Your task to perform on an android device: Search for "jbl flip 4" on walmart.com, select the first entry, add it to the cart, then select checkout. Image 0: 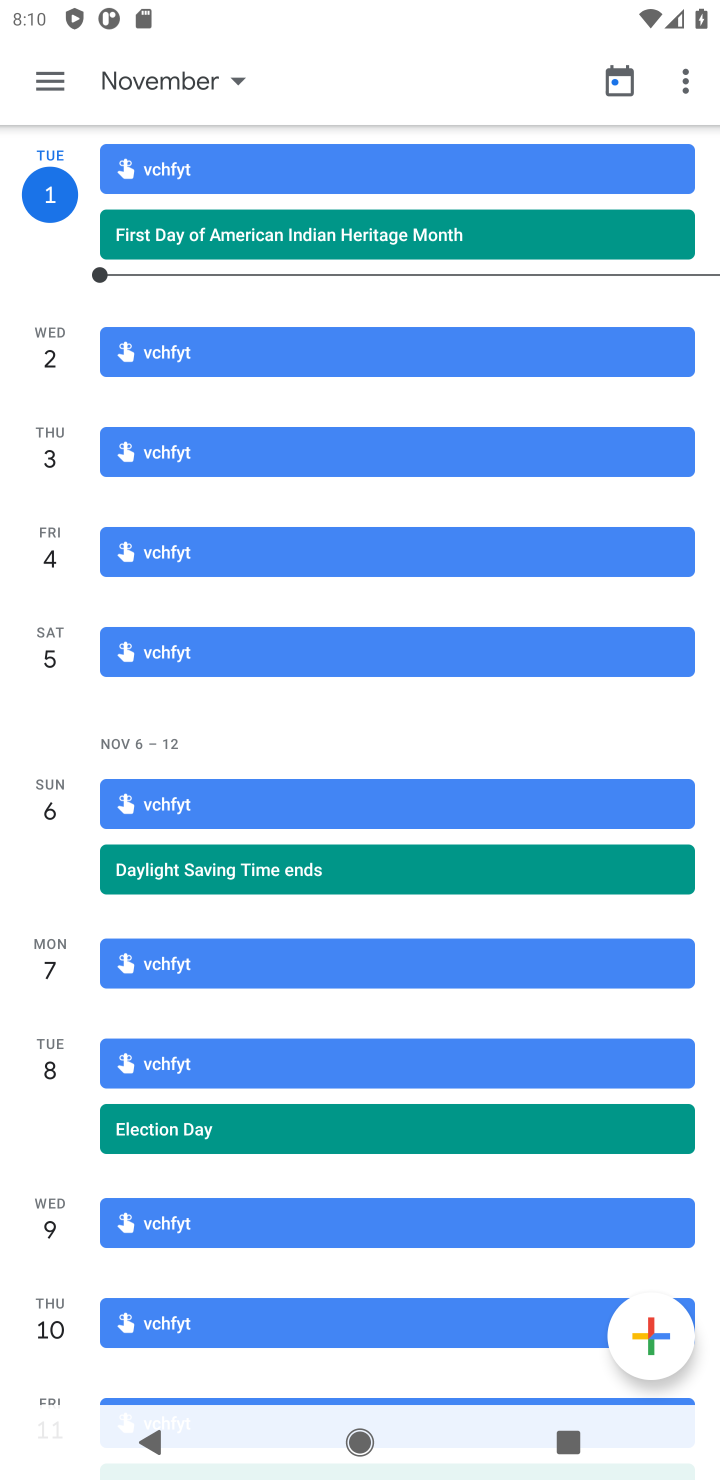
Step 0: press home button
Your task to perform on an android device: Search for "jbl flip 4" on walmart.com, select the first entry, add it to the cart, then select checkout. Image 1: 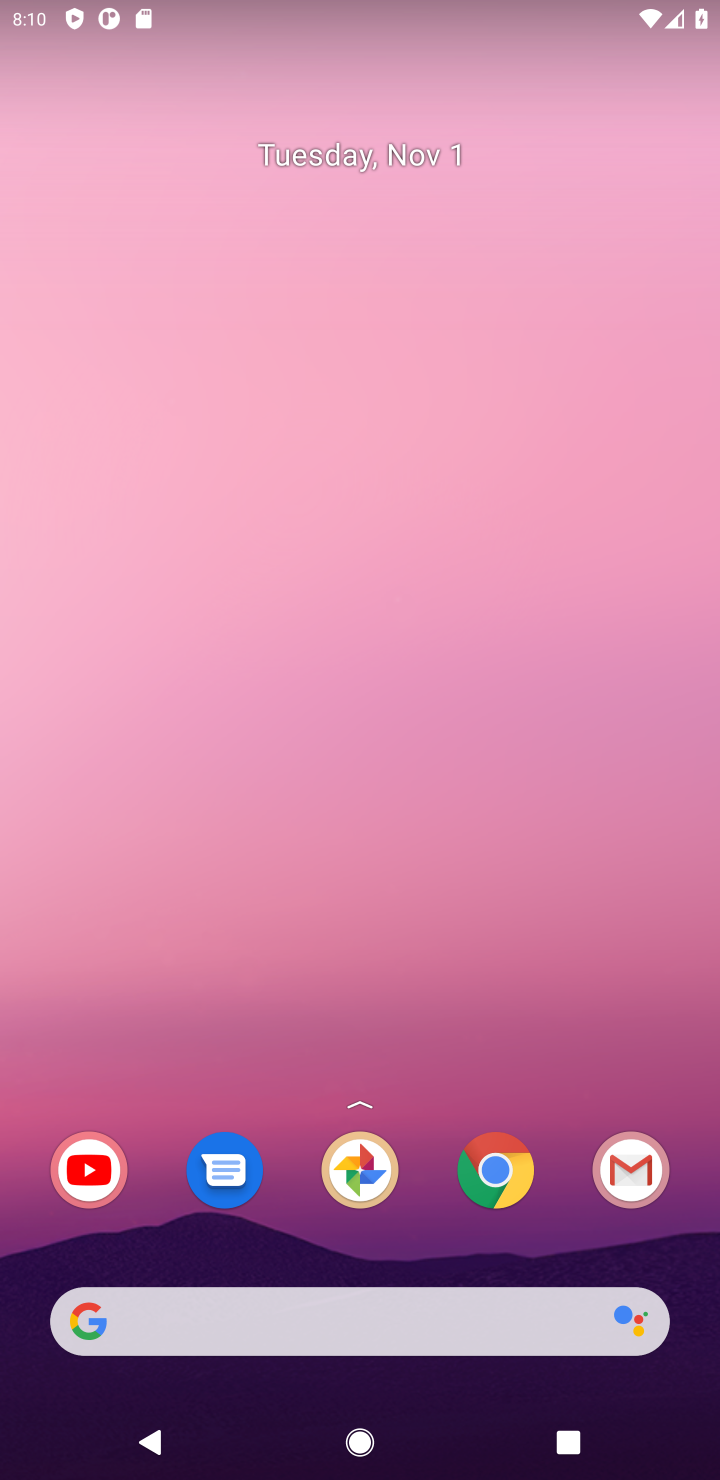
Step 1: click (509, 1195)
Your task to perform on an android device: Search for "jbl flip 4" on walmart.com, select the first entry, add it to the cart, then select checkout. Image 2: 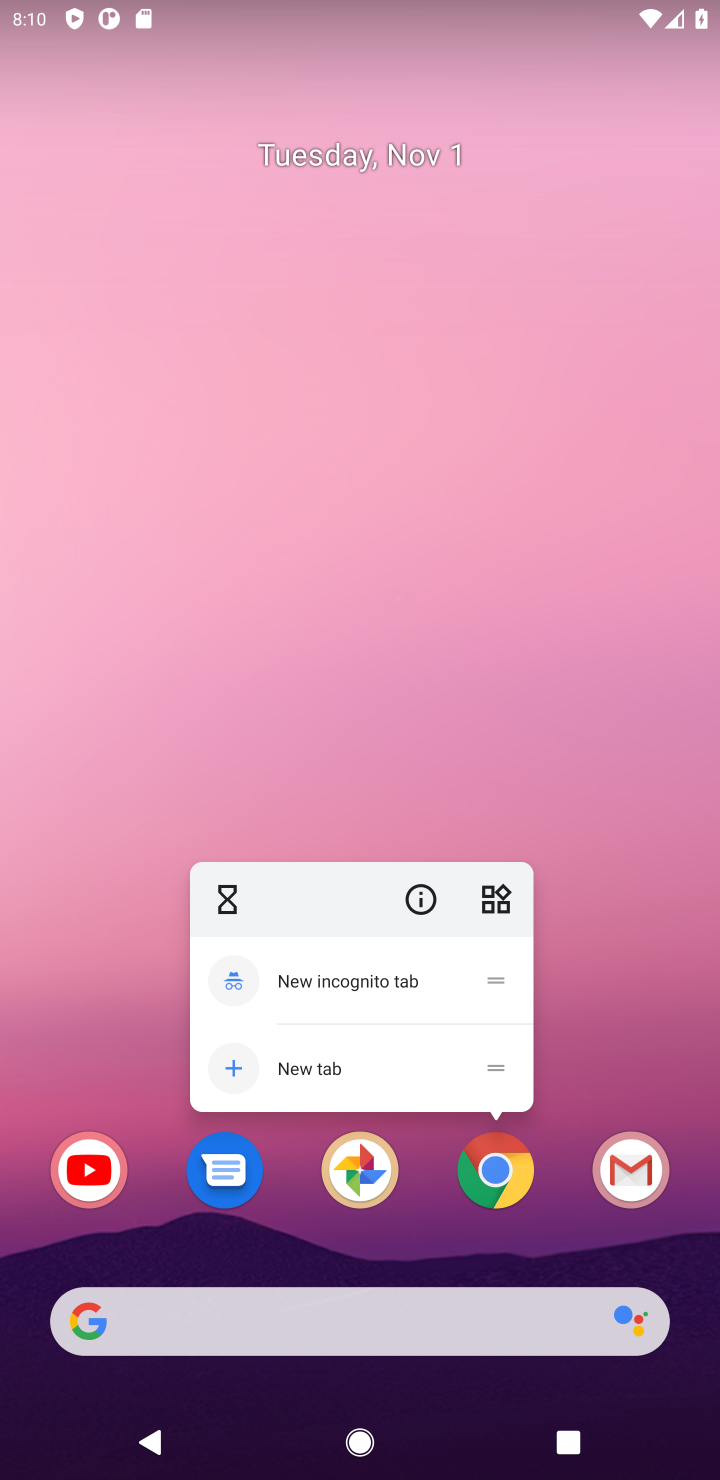
Step 2: click (501, 1201)
Your task to perform on an android device: Search for "jbl flip 4" on walmart.com, select the first entry, add it to the cart, then select checkout. Image 3: 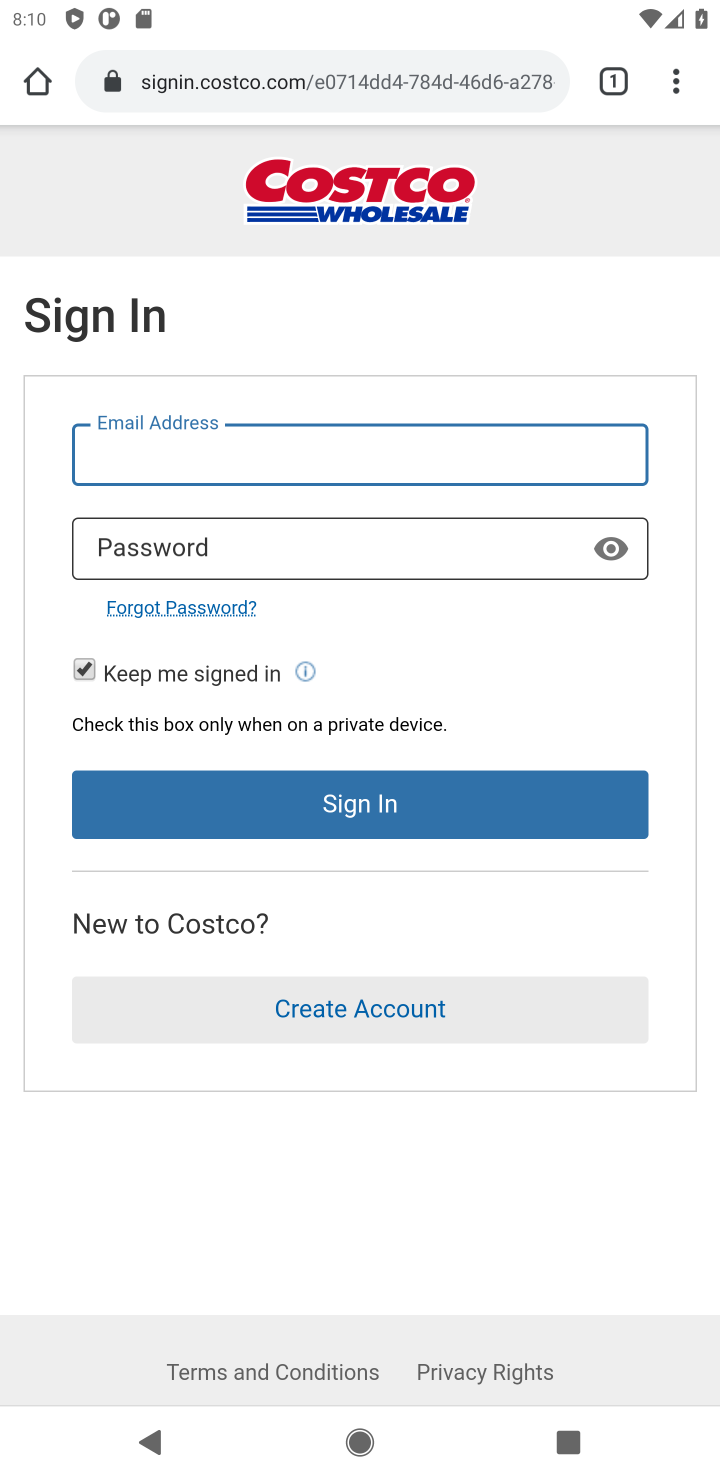
Step 3: click (346, 87)
Your task to perform on an android device: Search for "jbl flip 4" on walmart.com, select the first entry, add it to the cart, then select checkout. Image 4: 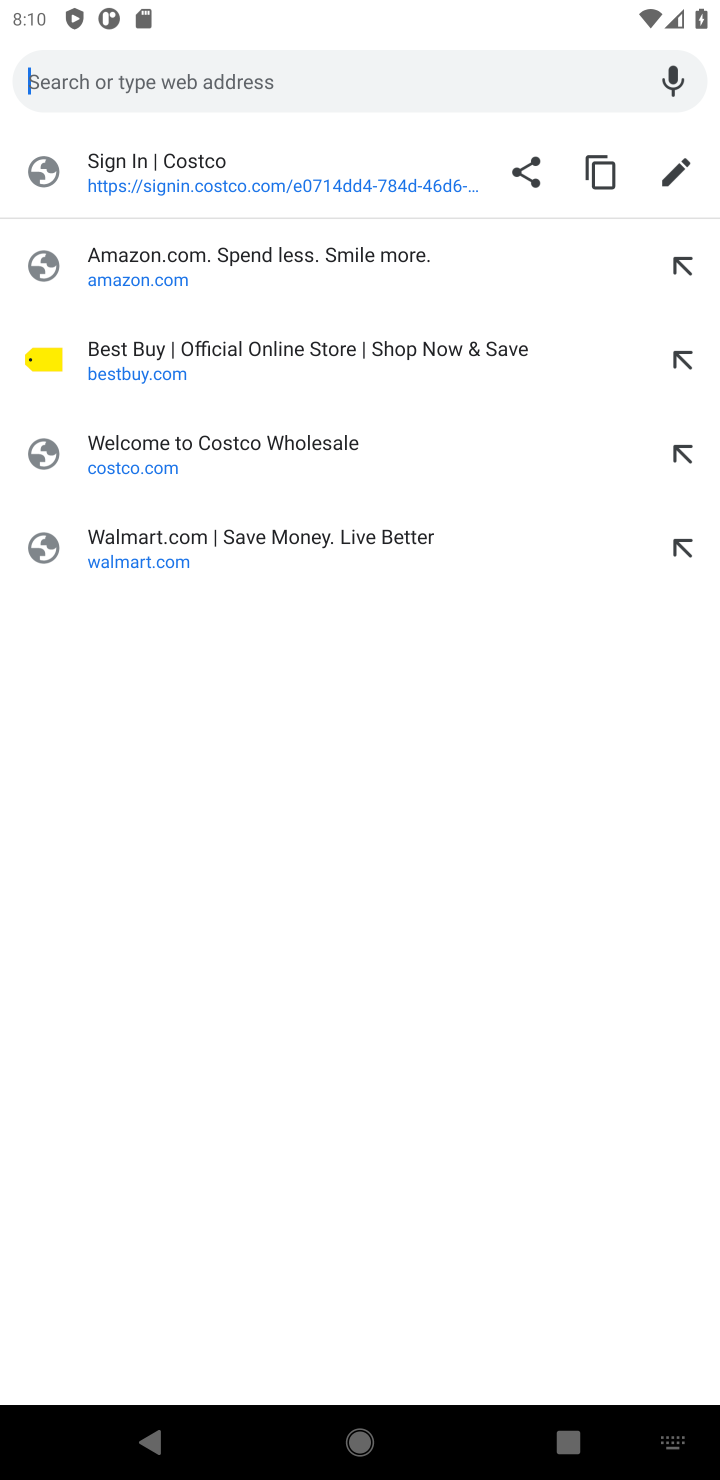
Step 4: type "walmart.com"
Your task to perform on an android device: Search for "jbl flip 4" on walmart.com, select the first entry, add it to the cart, then select checkout. Image 5: 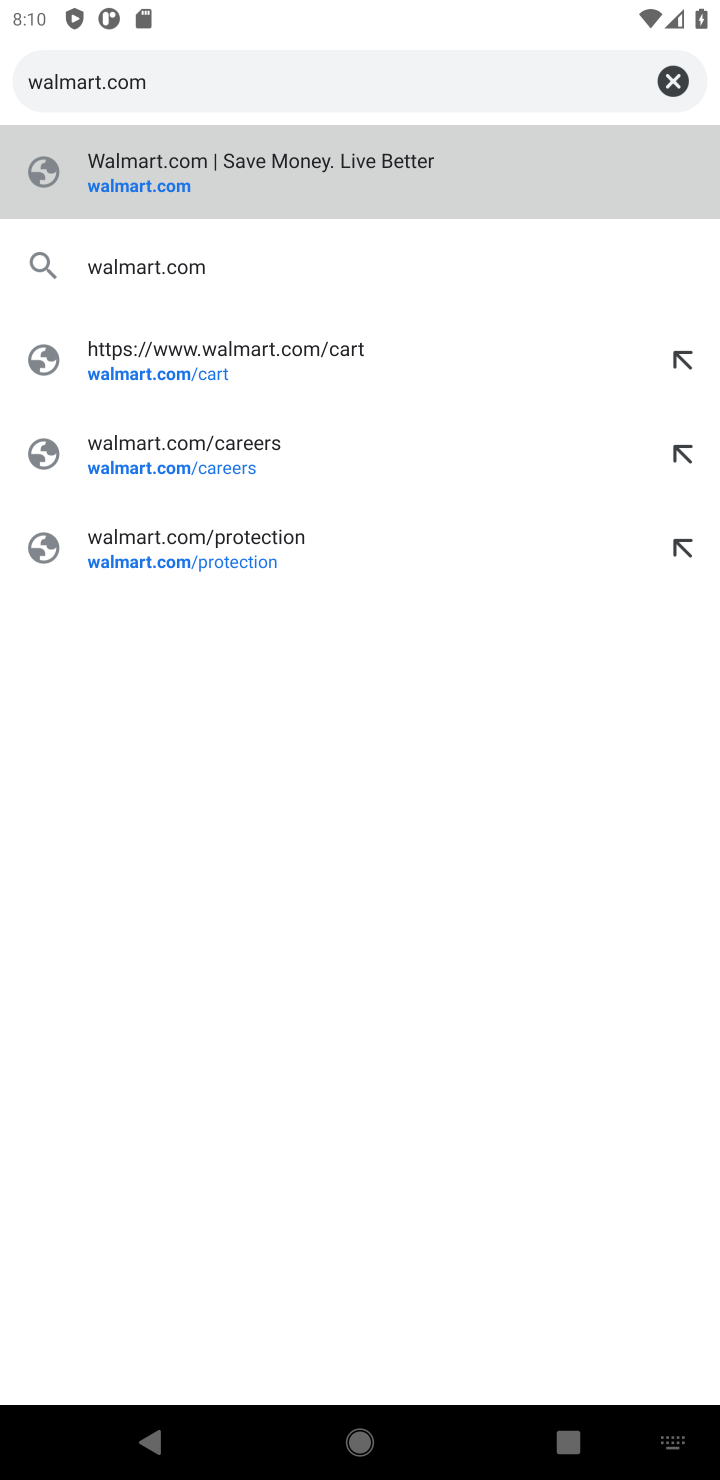
Step 5: type ""
Your task to perform on an android device: Search for "jbl flip 4" on walmart.com, select the first entry, add it to the cart, then select checkout. Image 6: 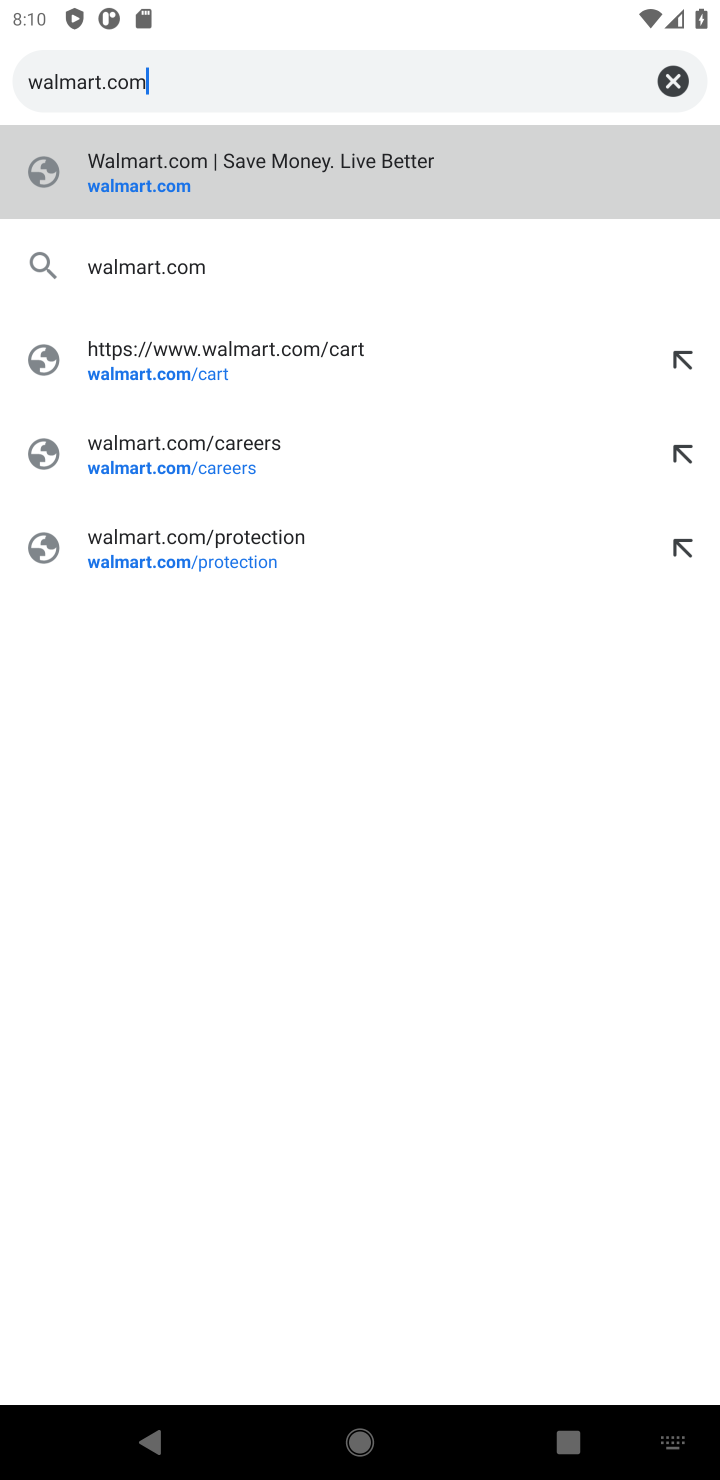
Step 6: press enter
Your task to perform on an android device: Search for "jbl flip 4" on walmart.com, select the first entry, add it to the cart, then select checkout. Image 7: 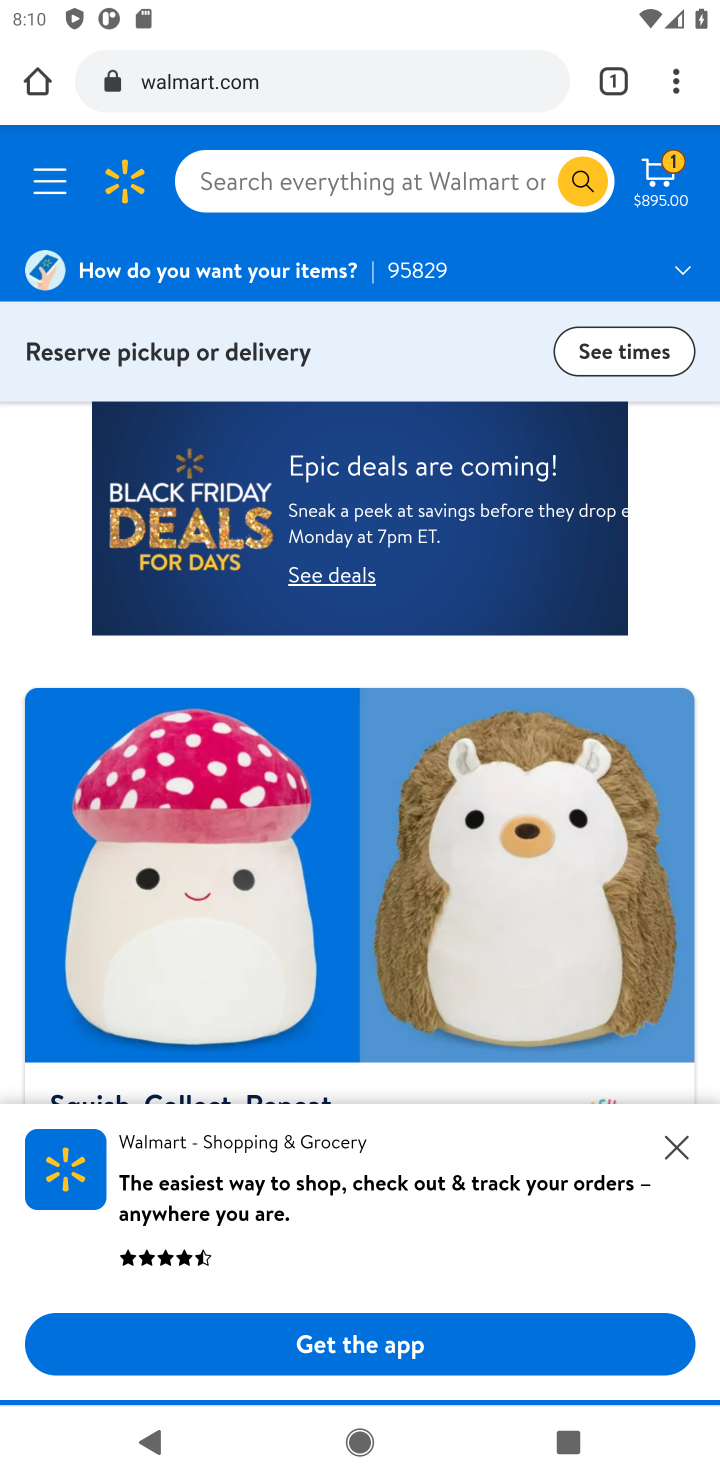
Step 7: click (366, 189)
Your task to perform on an android device: Search for "jbl flip 4" on walmart.com, select the first entry, add it to the cart, then select checkout. Image 8: 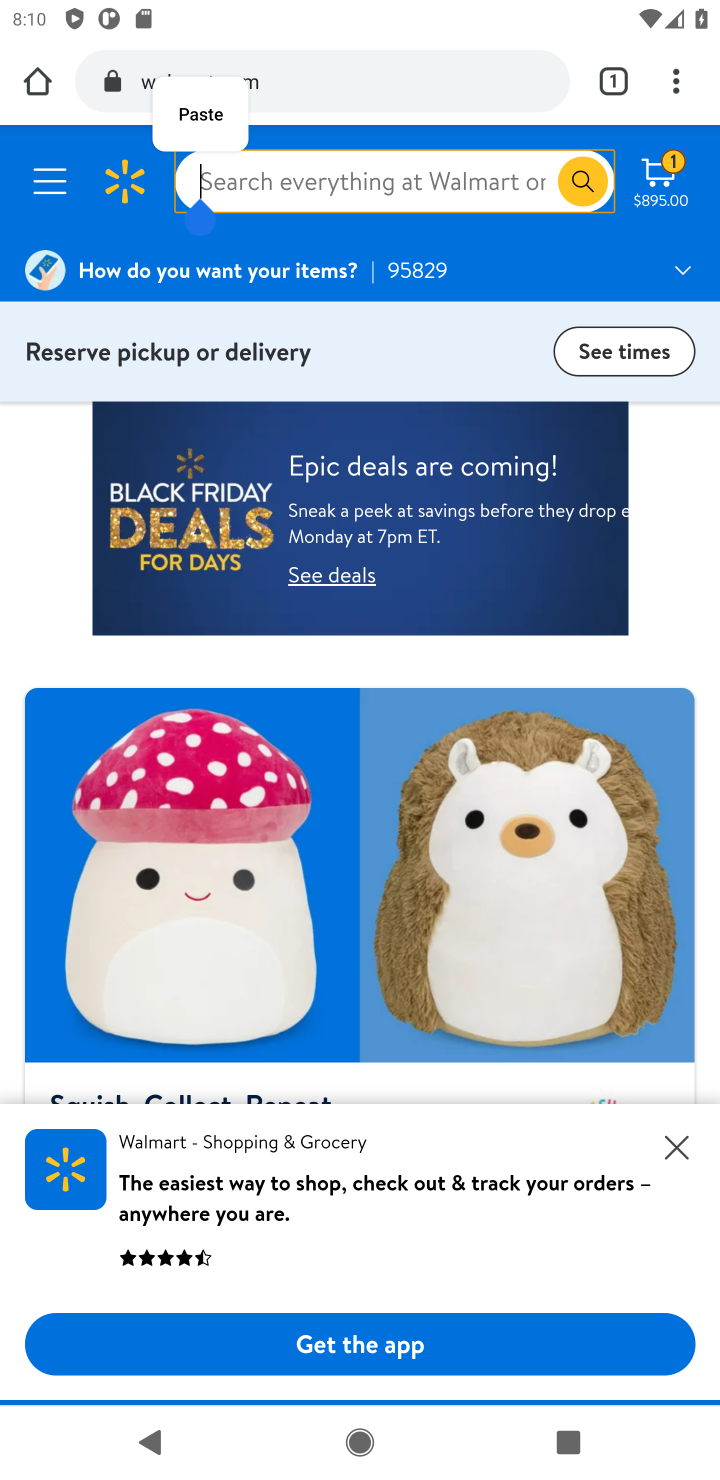
Step 8: type "jbl flip 4"
Your task to perform on an android device: Search for "jbl flip 4" on walmart.com, select the first entry, add it to the cart, then select checkout. Image 9: 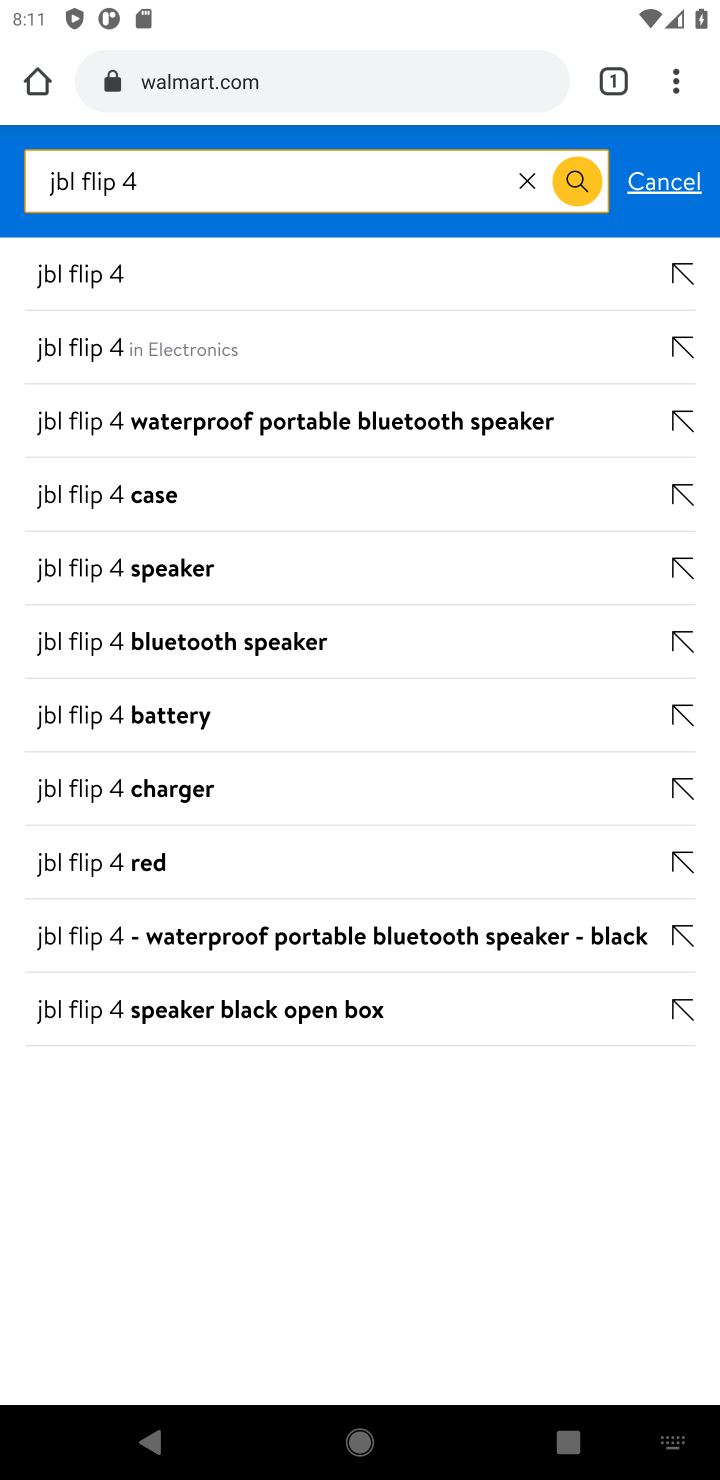
Step 9: press enter
Your task to perform on an android device: Search for "jbl flip 4" on walmart.com, select the first entry, add it to the cart, then select checkout. Image 10: 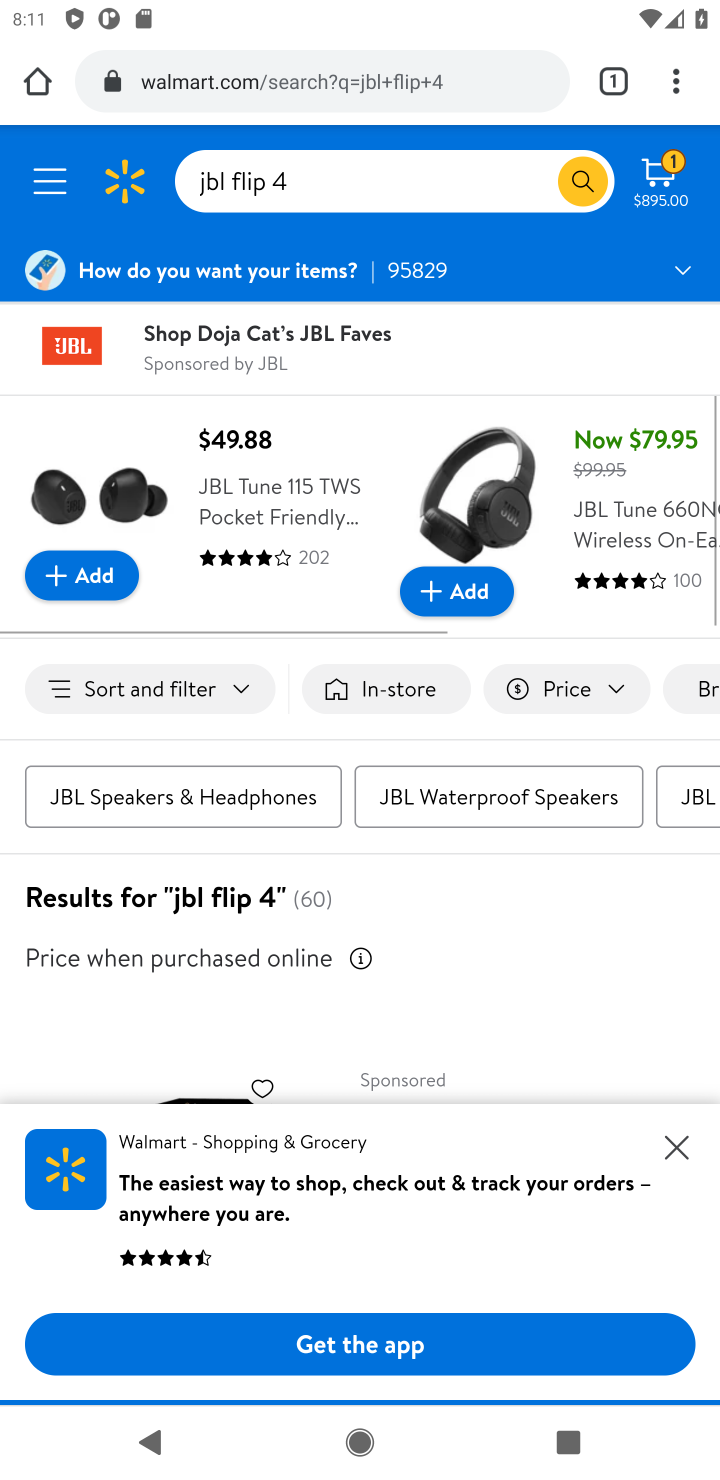
Step 10: task complete